Your task to perform on an android device: change the clock style Image 0: 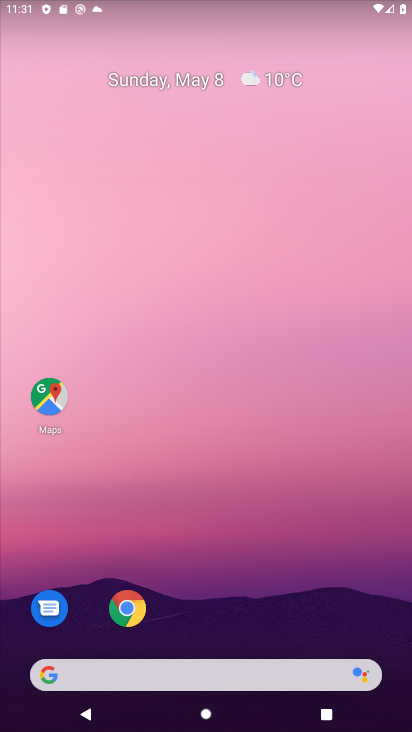
Step 0: drag from (284, 624) to (260, 185)
Your task to perform on an android device: change the clock style Image 1: 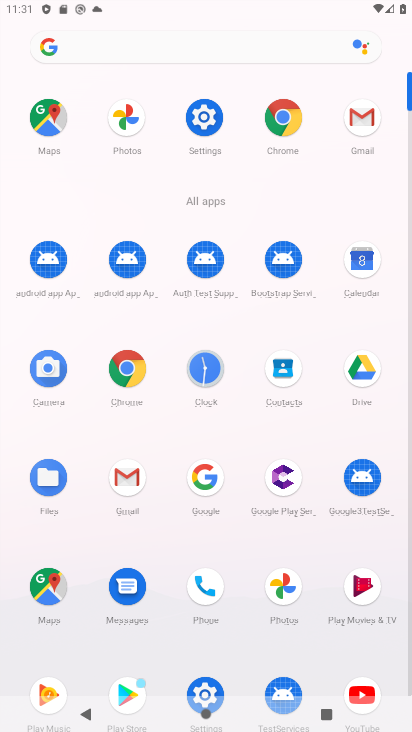
Step 1: click (208, 364)
Your task to perform on an android device: change the clock style Image 2: 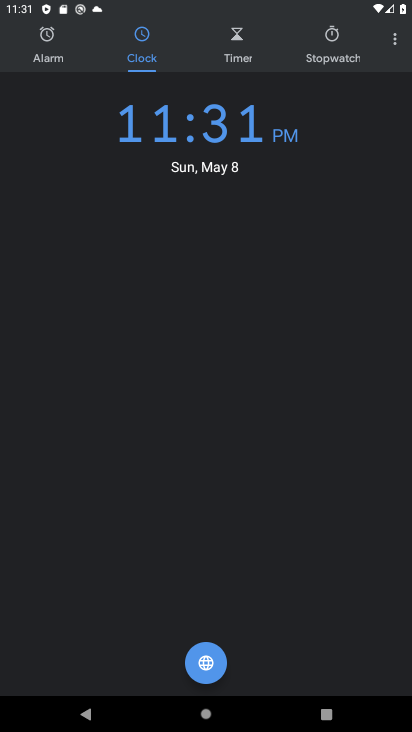
Step 2: click (389, 48)
Your task to perform on an android device: change the clock style Image 3: 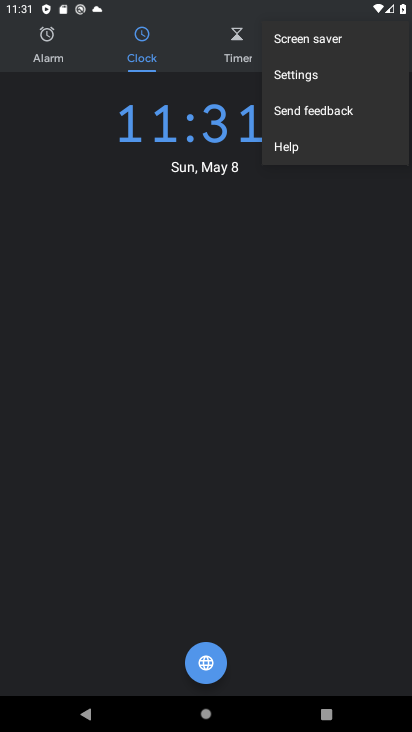
Step 3: click (346, 77)
Your task to perform on an android device: change the clock style Image 4: 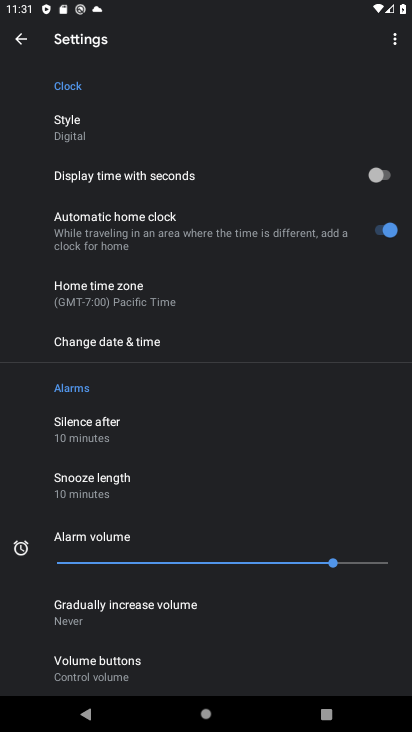
Step 4: click (152, 141)
Your task to perform on an android device: change the clock style Image 5: 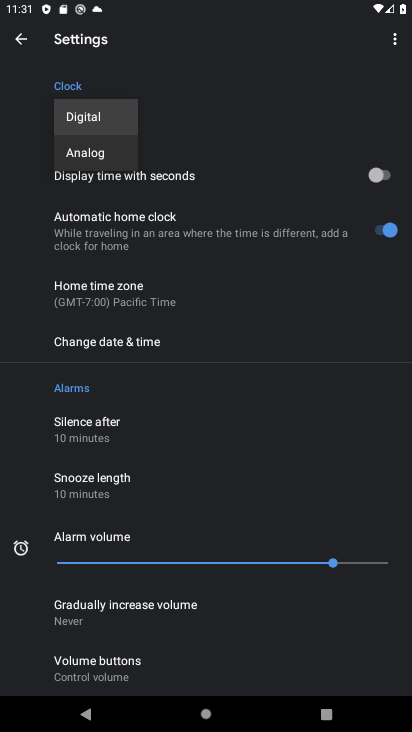
Step 5: click (94, 162)
Your task to perform on an android device: change the clock style Image 6: 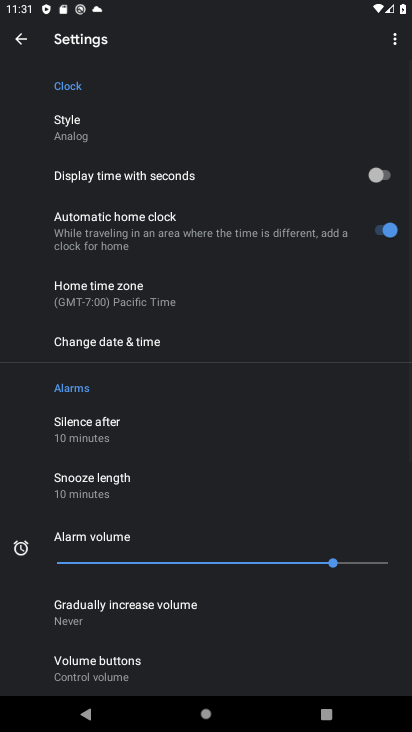
Step 6: task complete